Your task to perform on an android device: turn on translation in the chrome app Image 0: 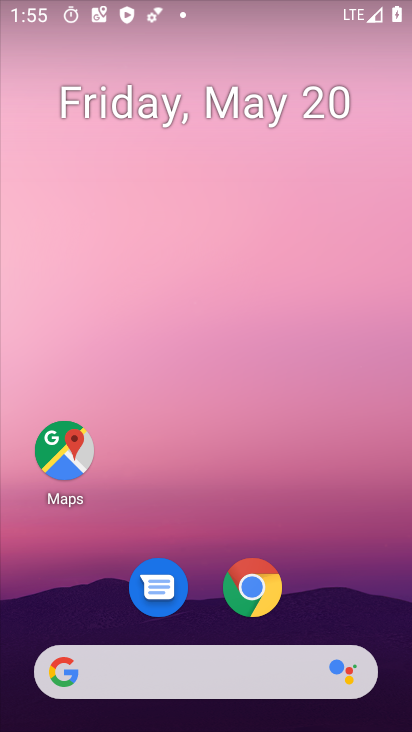
Step 0: click (261, 588)
Your task to perform on an android device: turn on translation in the chrome app Image 1: 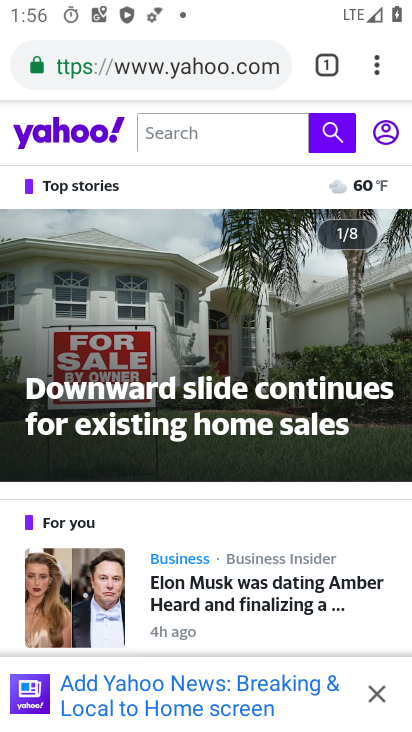
Step 1: drag from (384, 65) to (213, 641)
Your task to perform on an android device: turn on translation in the chrome app Image 2: 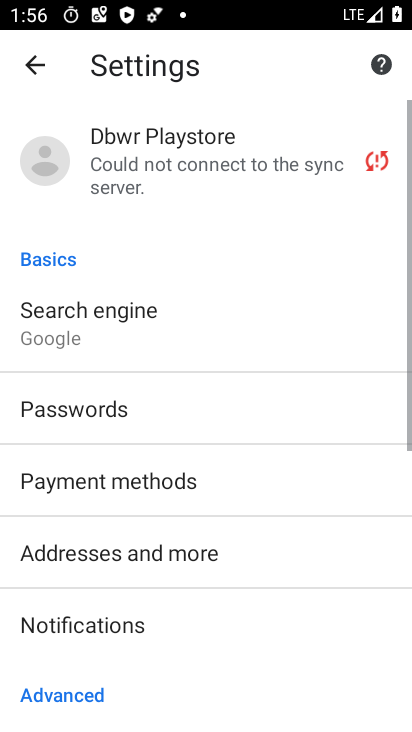
Step 2: drag from (136, 535) to (174, 59)
Your task to perform on an android device: turn on translation in the chrome app Image 3: 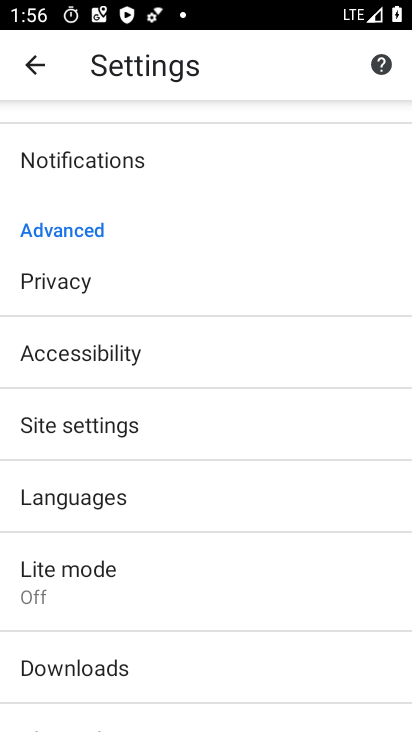
Step 3: drag from (103, 613) to (154, 436)
Your task to perform on an android device: turn on translation in the chrome app Image 4: 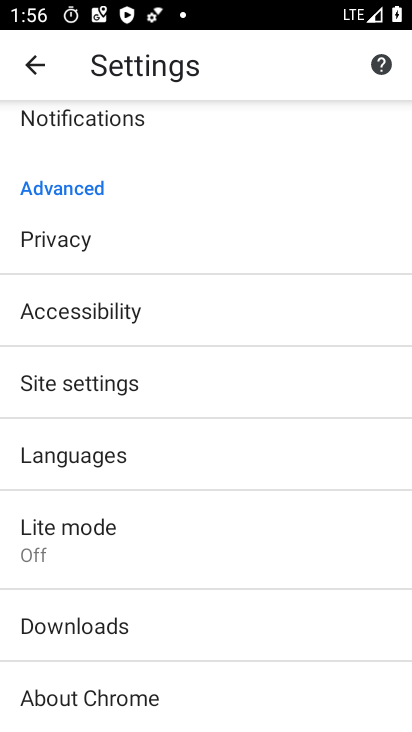
Step 4: click (122, 451)
Your task to perform on an android device: turn on translation in the chrome app Image 5: 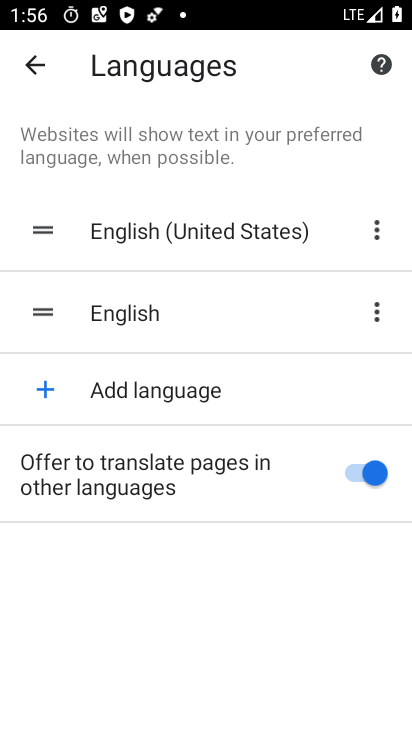
Step 5: task complete